Your task to perform on an android device: change the clock style Image 0: 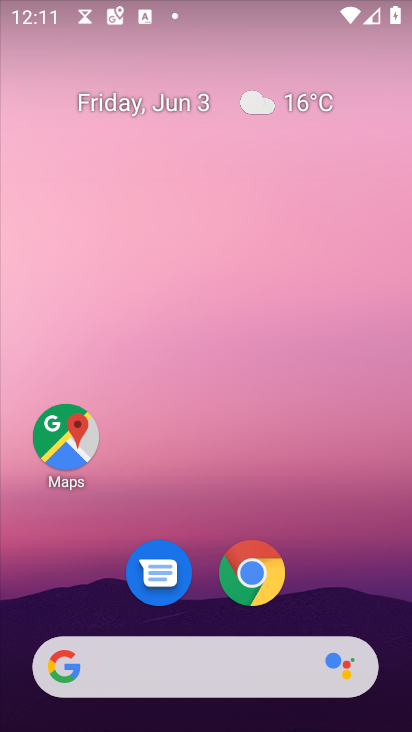
Step 0: drag from (366, 555) to (294, 7)
Your task to perform on an android device: change the clock style Image 1: 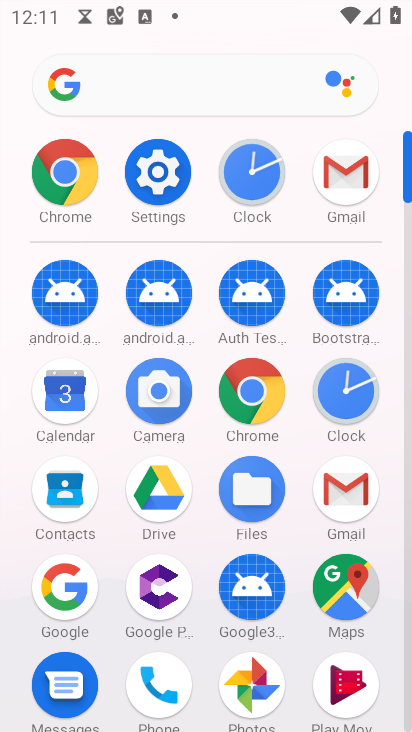
Step 1: click (277, 233)
Your task to perform on an android device: change the clock style Image 2: 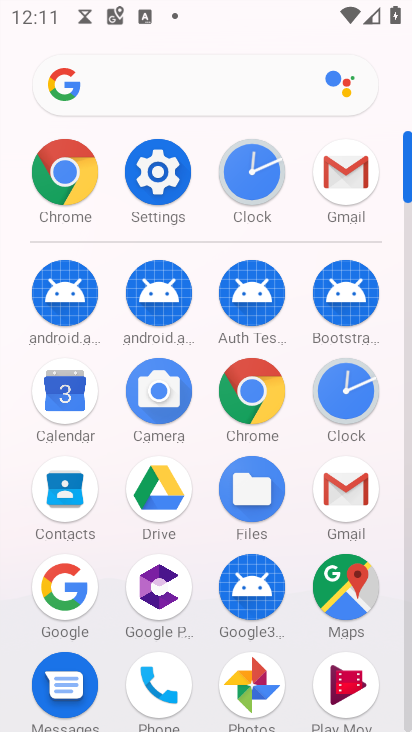
Step 2: click (259, 185)
Your task to perform on an android device: change the clock style Image 3: 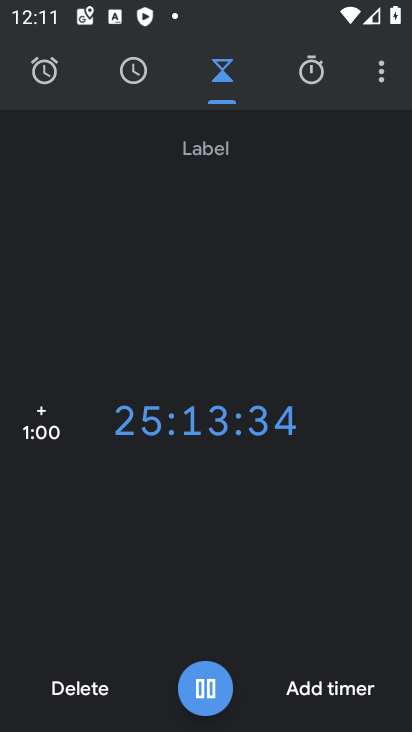
Step 3: click (385, 73)
Your task to perform on an android device: change the clock style Image 4: 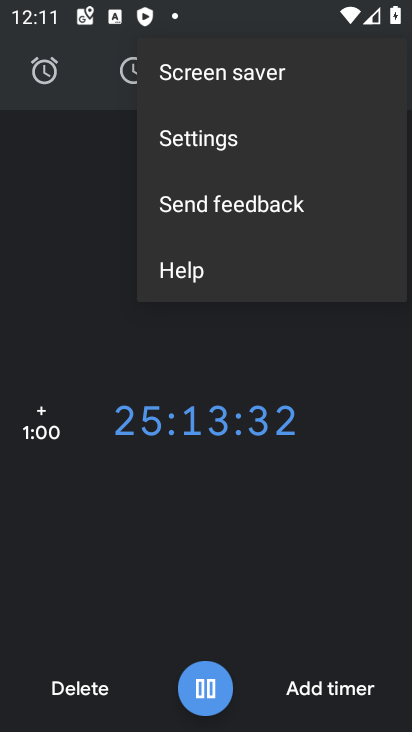
Step 4: click (251, 95)
Your task to perform on an android device: change the clock style Image 5: 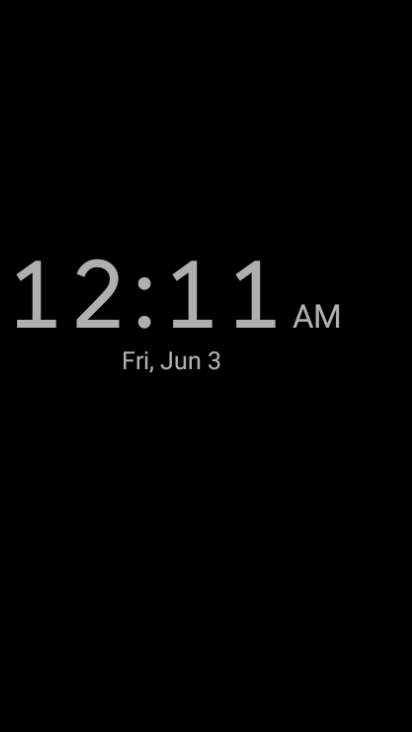
Step 5: click (237, 378)
Your task to perform on an android device: change the clock style Image 6: 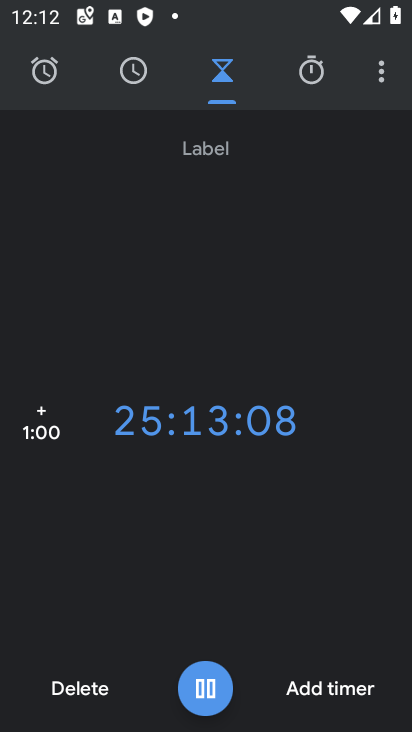
Step 6: click (363, 83)
Your task to perform on an android device: change the clock style Image 7: 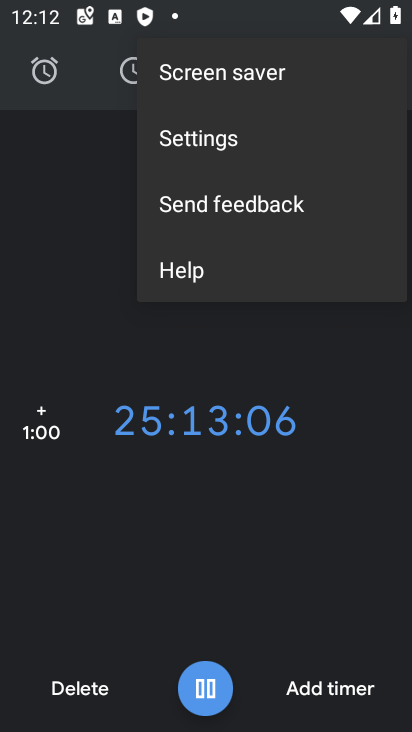
Step 7: click (174, 130)
Your task to perform on an android device: change the clock style Image 8: 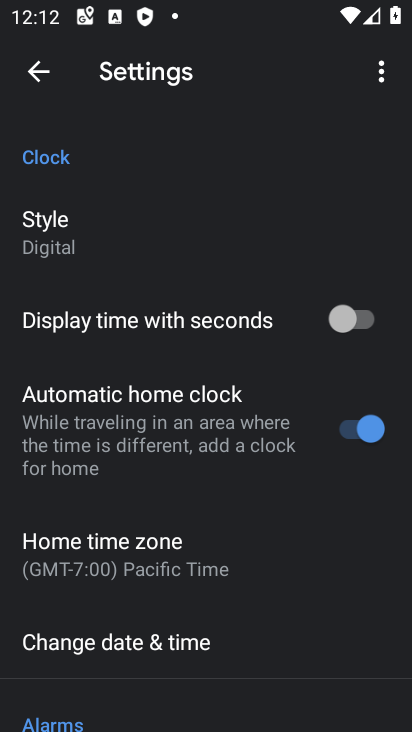
Step 8: click (67, 248)
Your task to perform on an android device: change the clock style Image 9: 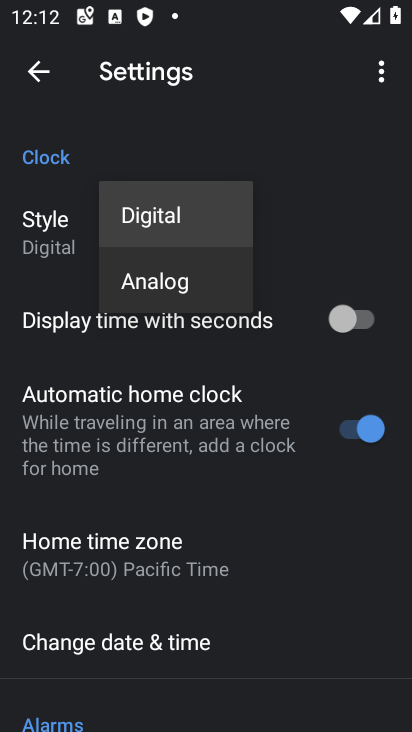
Step 9: click (137, 294)
Your task to perform on an android device: change the clock style Image 10: 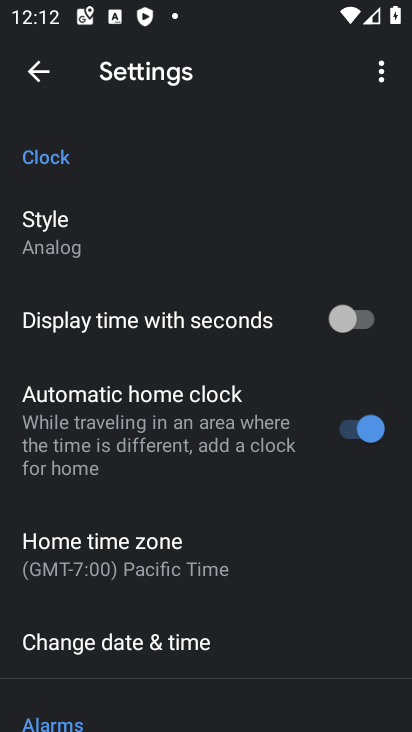
Step 10: task complete